Your task to perform on an android device: Open Google Maps and go to "Timeline" Image 0: 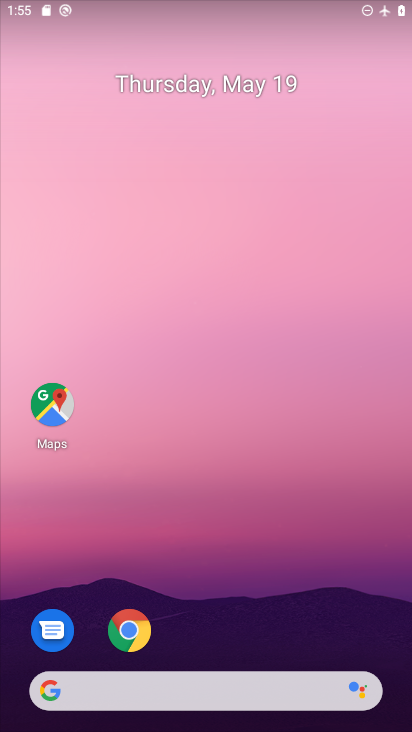
Step 0: drag from (191, 653) to (132, 102)
Your task to perform on an android device: Open Google Maps and go to "Timeline" Image 1: 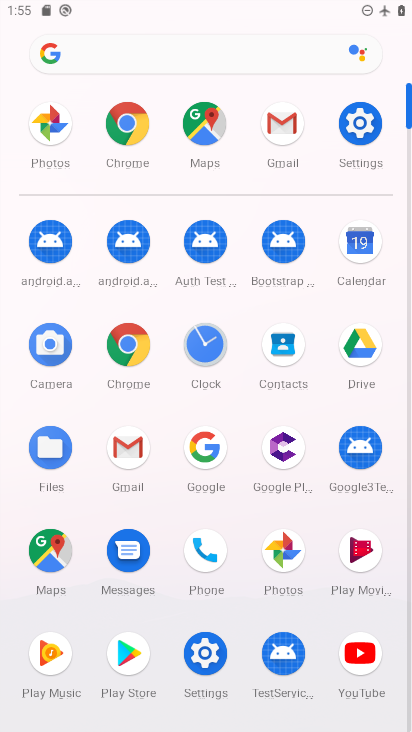
Step 1: click (47, 544)
Your task to perform on an android device: Open Google Maps and go to "Timeline" Image 2: 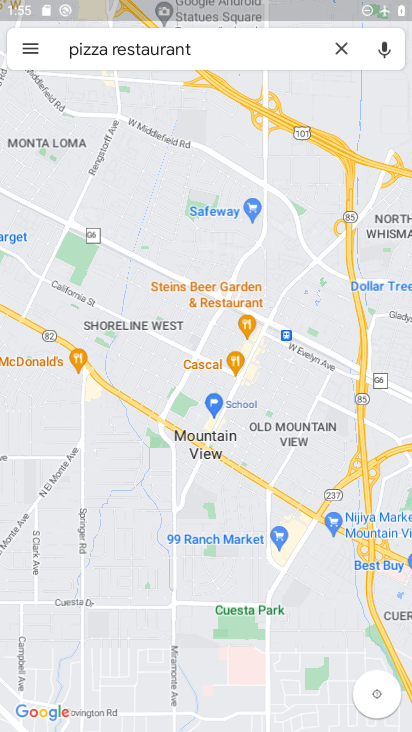
Step 2: click (29, 57)
Your task to perform on an android device: Open Google Maps and go to "Timeline" Image 3: 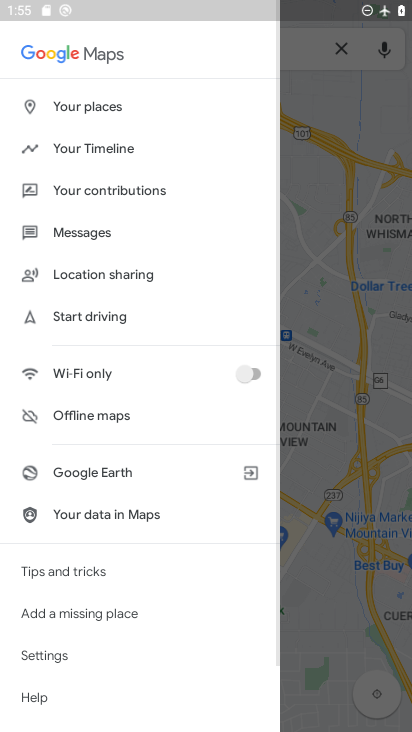
Step 3: click (74, 137)
Your task to perform on an android device: Open Google Maps and go to "Timeline" Image 4: 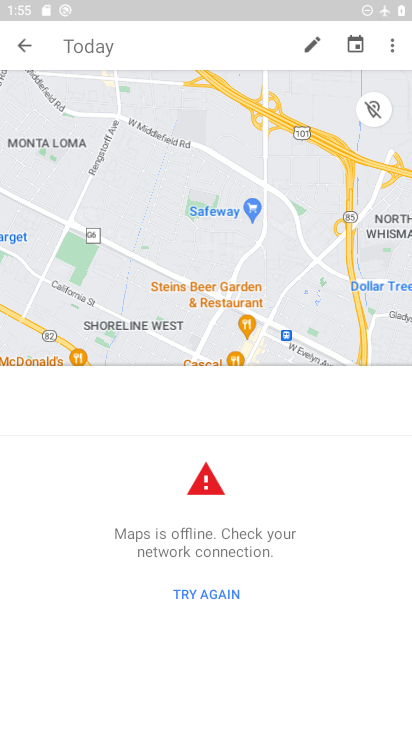
Step 4: task complete